Your task to perform on an android device: Set an alarm for 6pm Image 0: 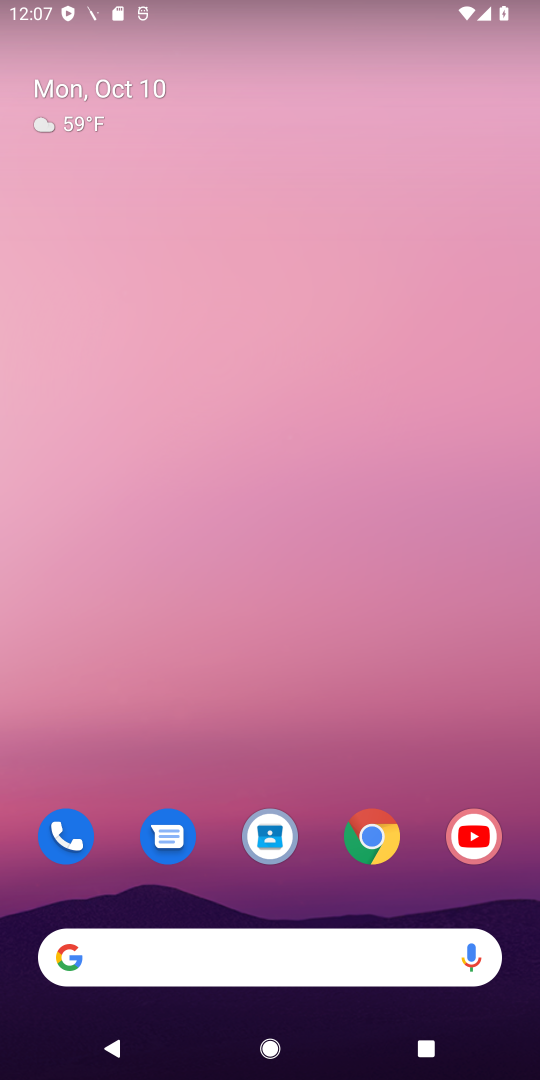
Step 0: drag from (298, 764) to (335, 130)
Your task to perform on an android device: Set an alarm for 6pm Image 1: 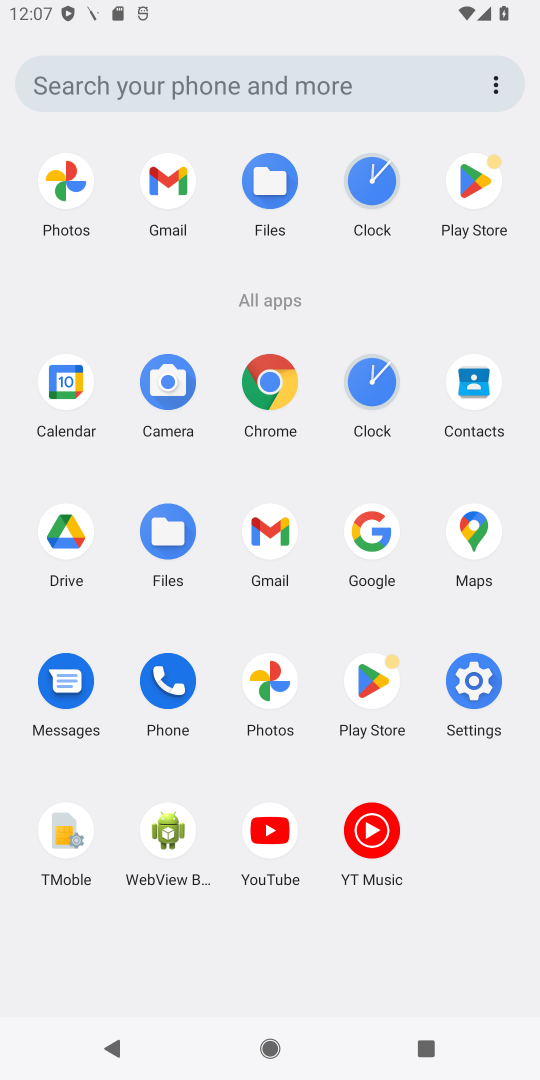
Step 1: click (364, 171)
Your task to perform on an android device: Set an alarm for 6pm Image 2: 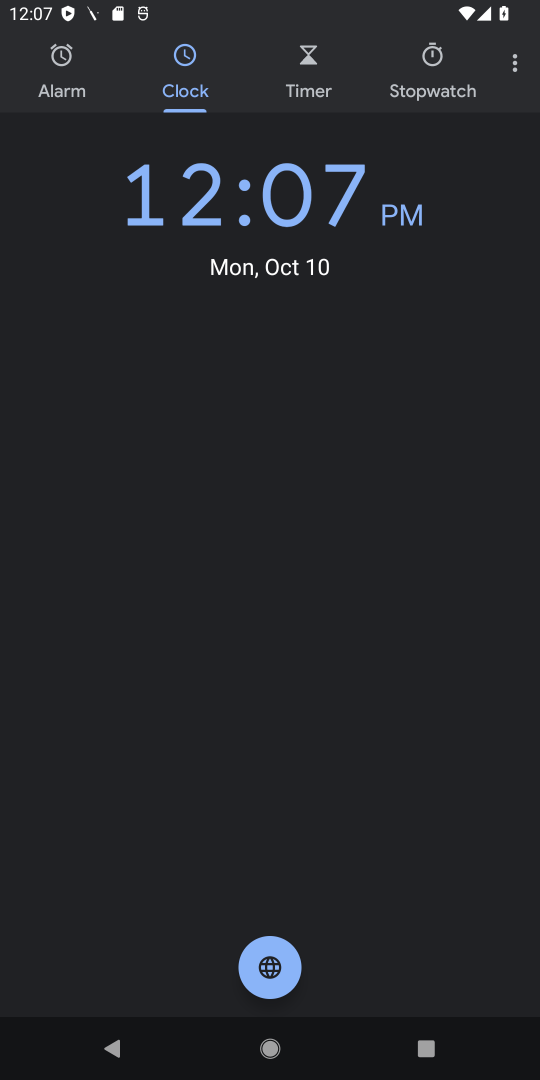
Step 2: click (62, 93)
Your task to perform on an android device: Set an alarm for 6pm Image 3: 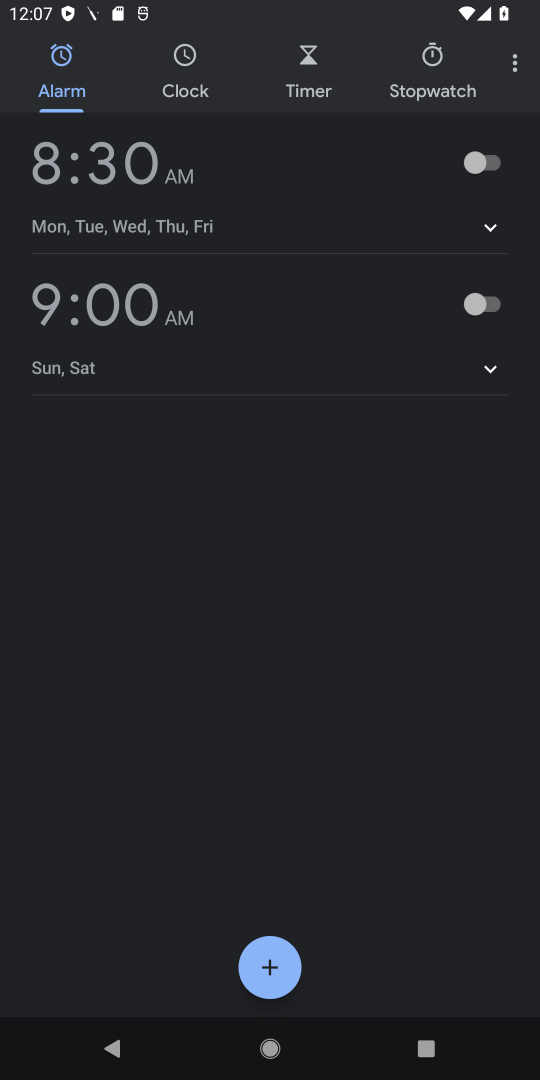
Step 3: click (280, 973)
Your task to perform on an android device: Set an alarm for 6pm Image 4: 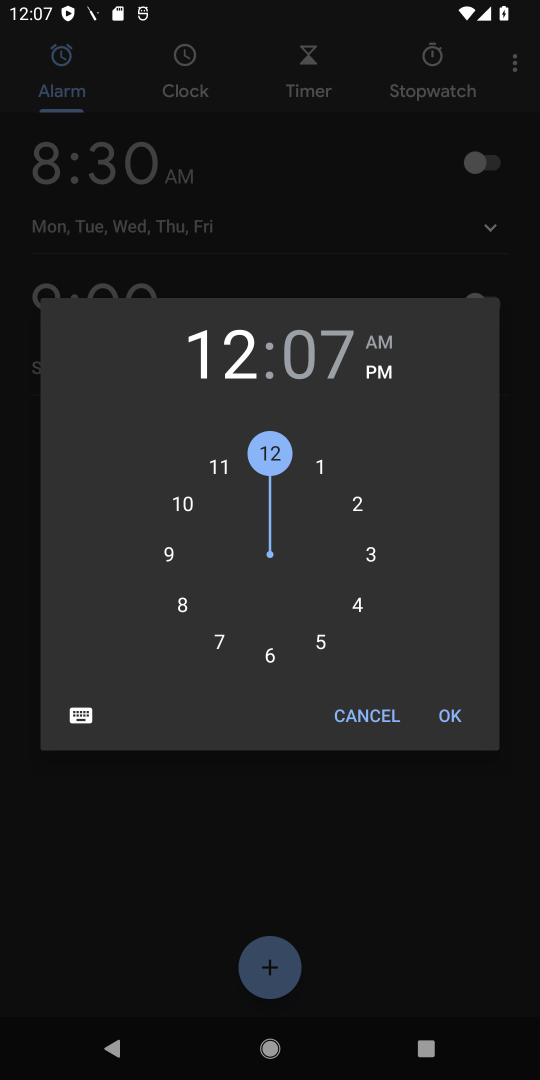
Step 4: click (267, 660)
Your task to perform on an android device: Set an alarm for 6pm Image 5: 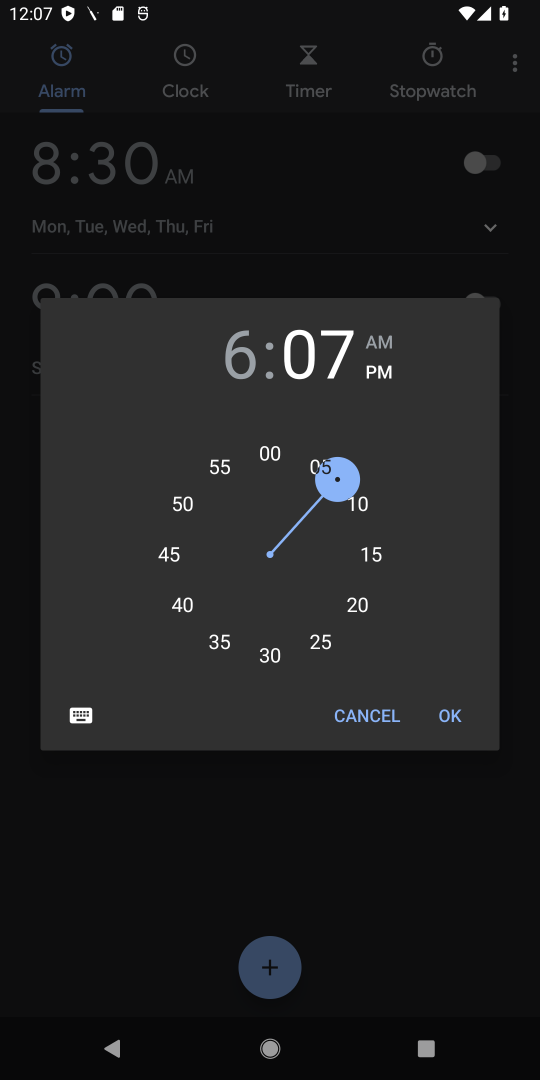
Step 5: click (276, 455)
Your task to perform on an android device: Set an alarm for 6pm Image 6: 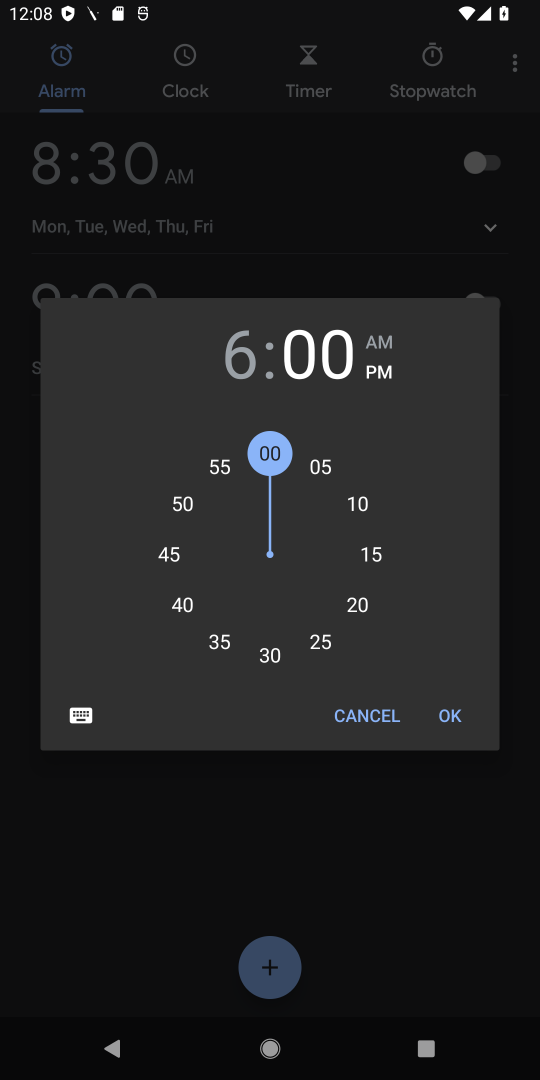
Step 6: click (451, 731)
Your task to perform on an android device: Set an alarm for 6pm Image 7: 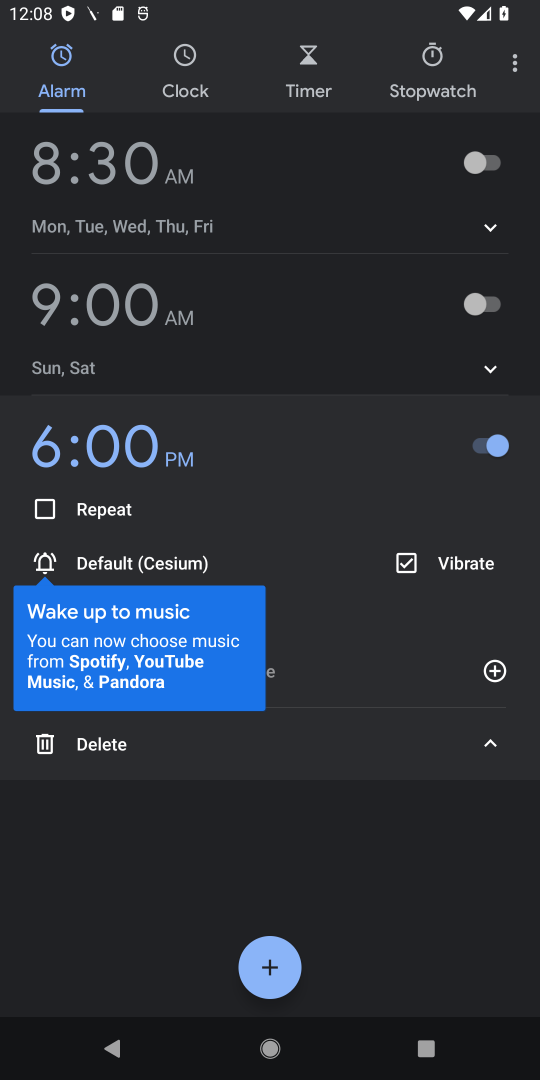
Step 7: task complete